Your task to perform on an android device: Go to ESPN.com Image 0: 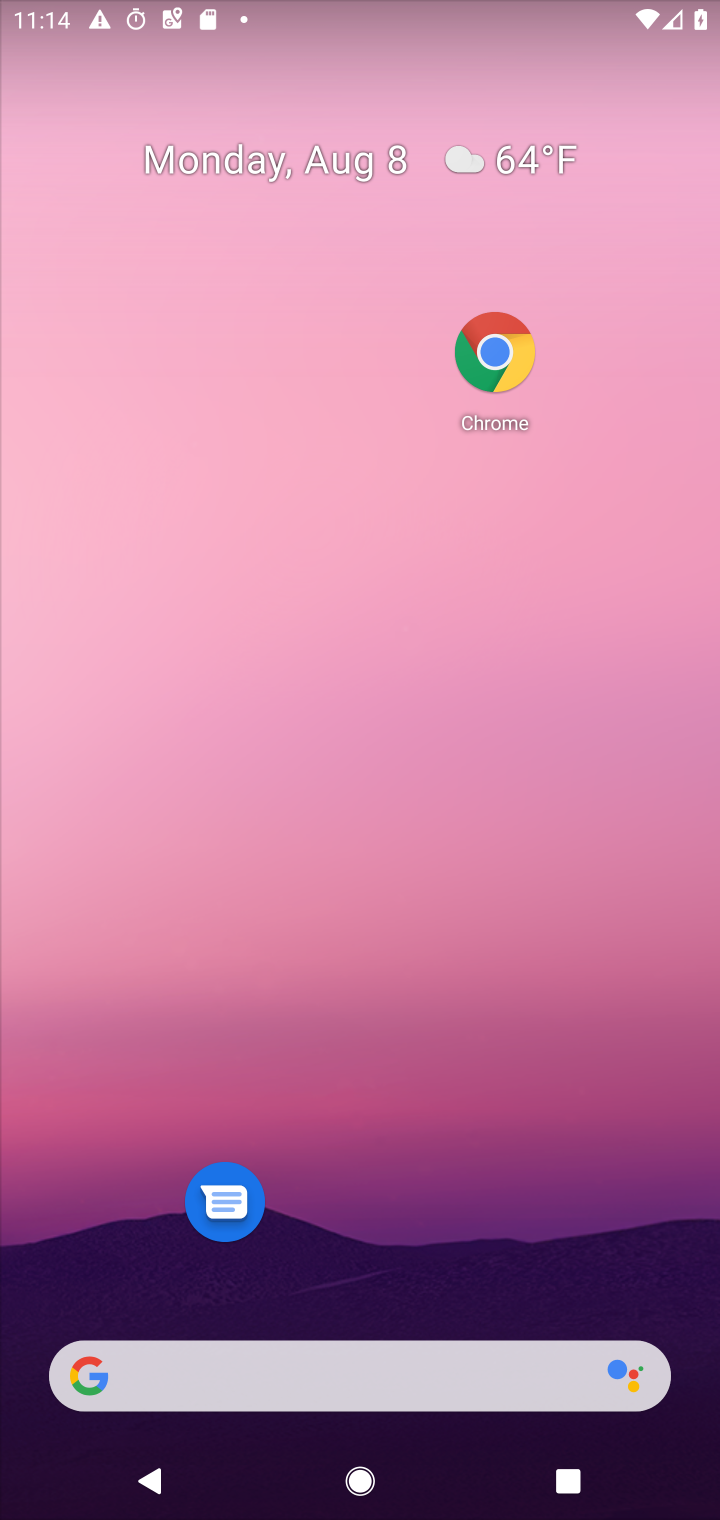
Step 0: click (487, 399)
Your task to perform on an android device: Go to ESPN.com Image 1: 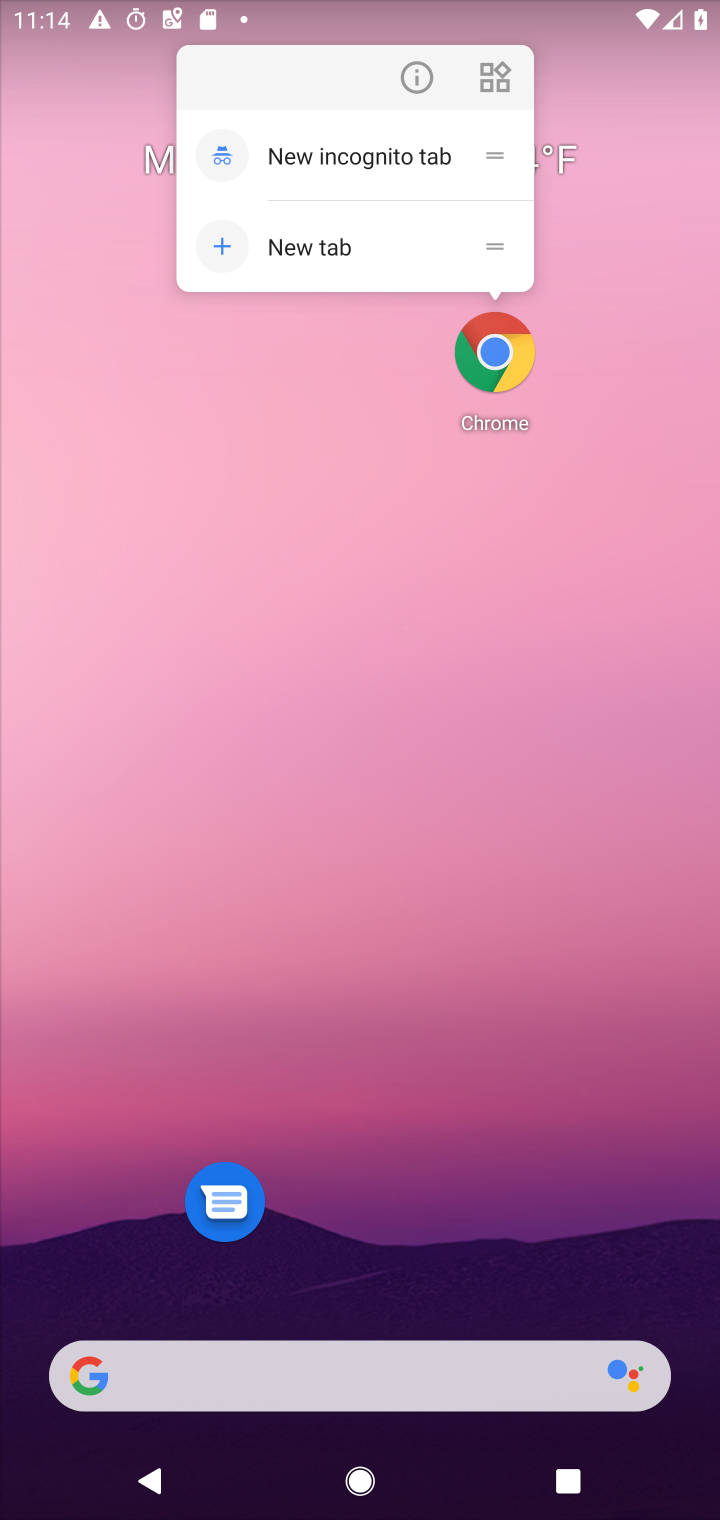
Step 1: click (488, 394)
Your task to perform on an android device: Go to ESPN.com Image 2: 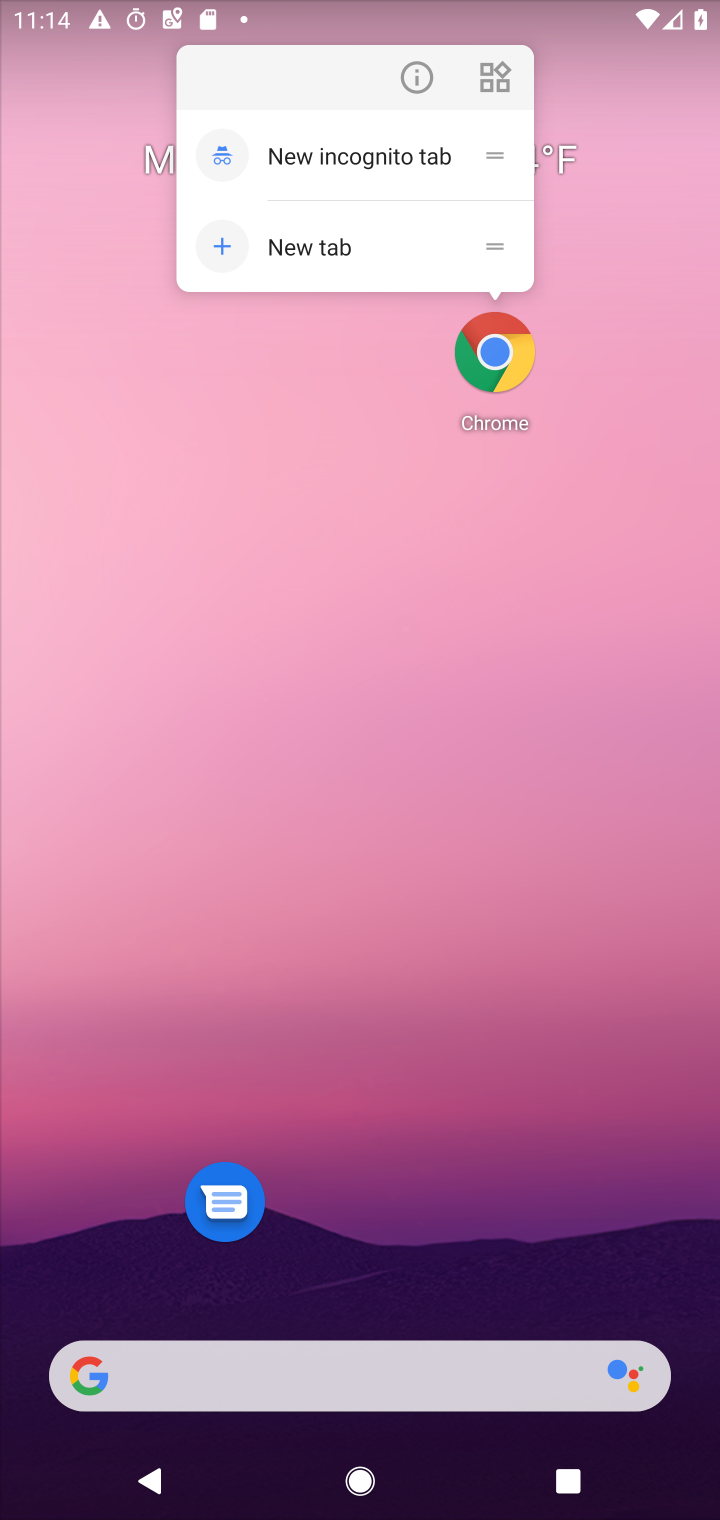
Step 2: click (507, 393)
Your task to perform on an android device: Go to ESPN.com Image 3: 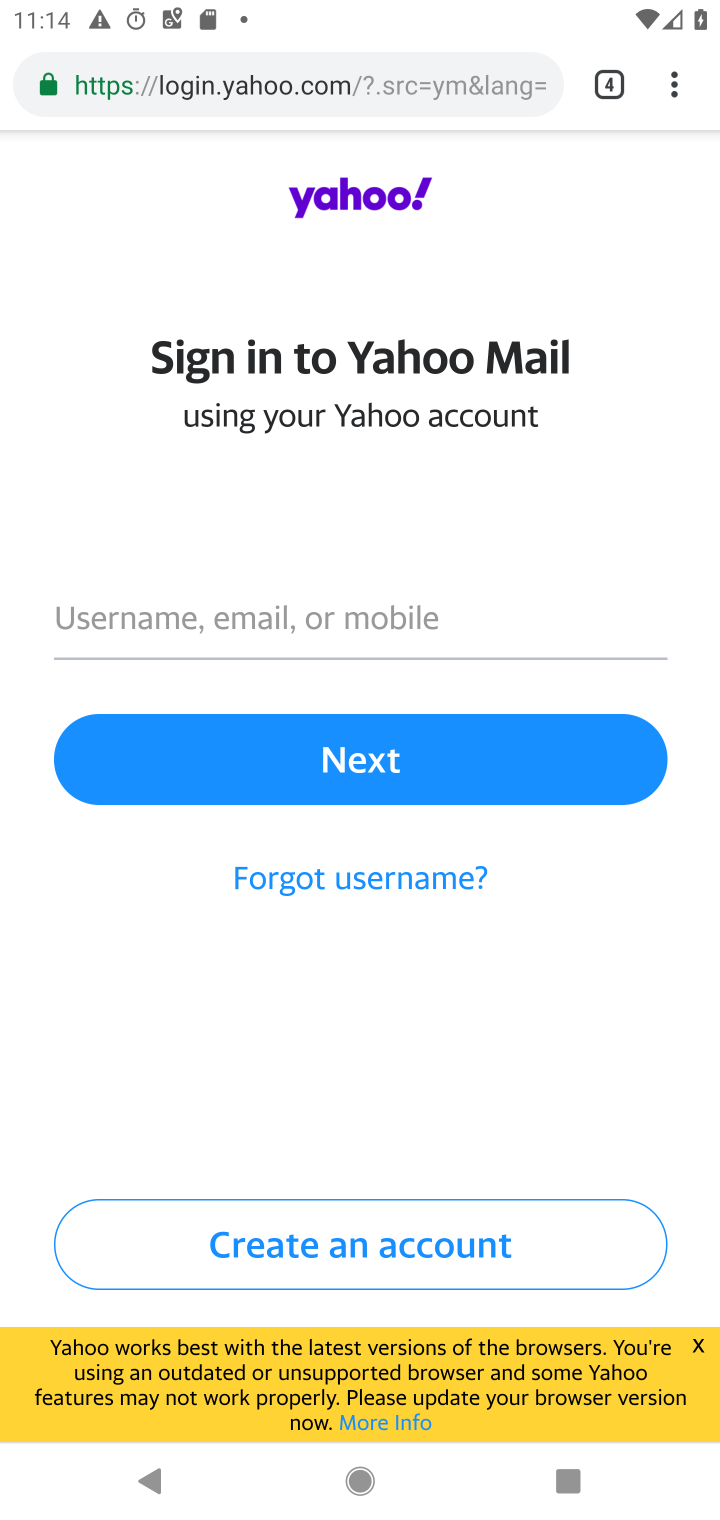
Step 3: click (467, 87)
Your task to perform on an android device: Go to ESPN.com Image 4: 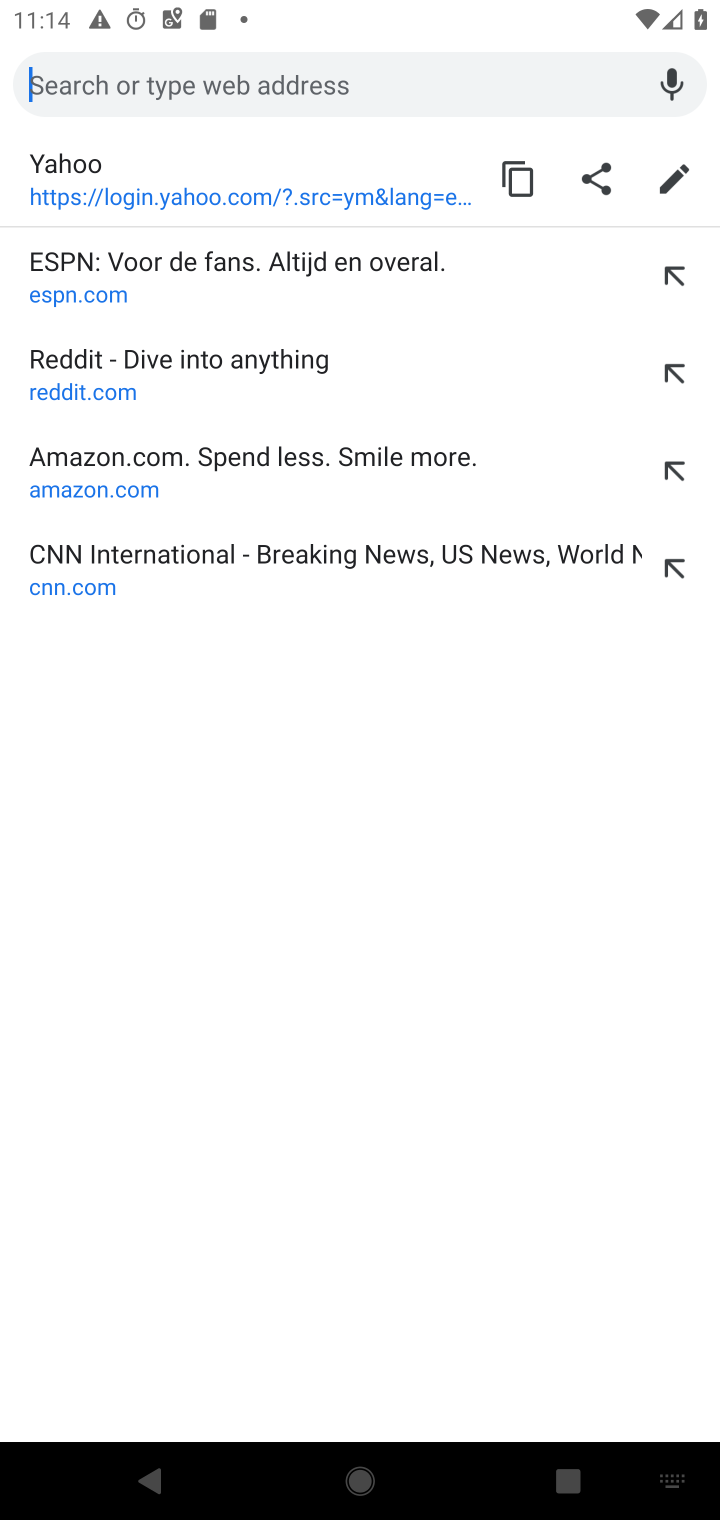
Step 4: click (267, 284)
Your task to perform on an android device: Go to ESPN.com Image 5: 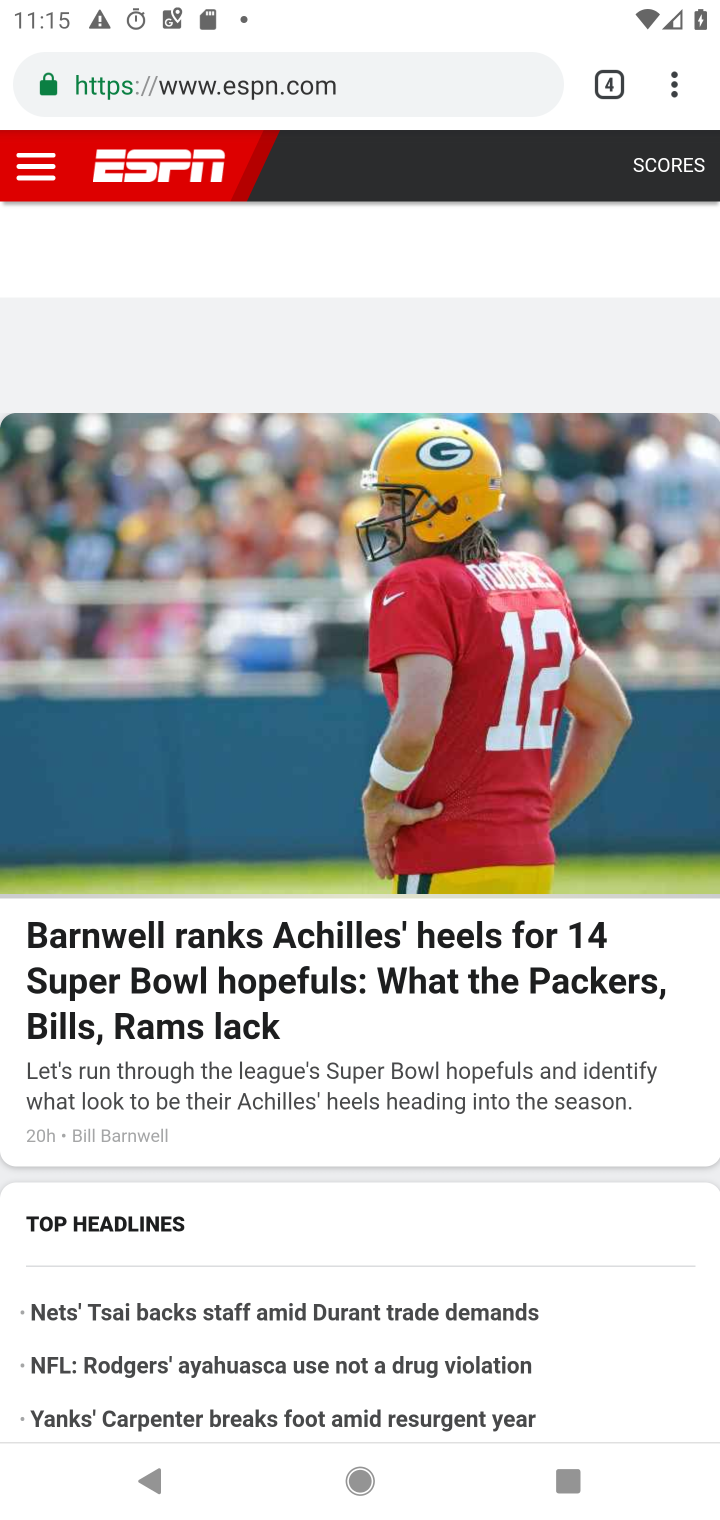
Step 5: task complete